Your task to perform on an android device: set the stopwatch Image 0: 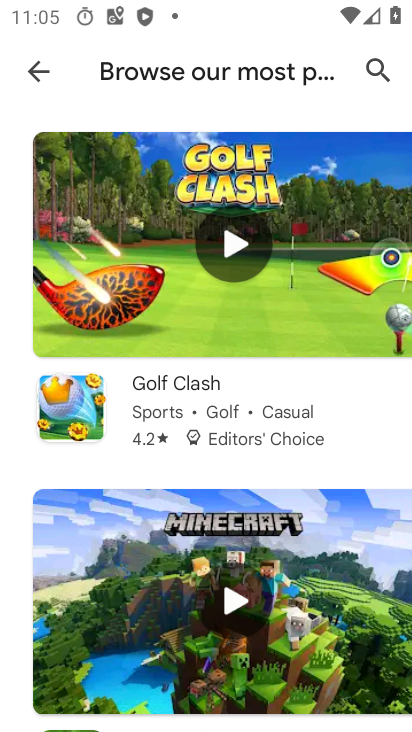
Step 0: press home button
Your task to perform on an android device: set the stopwatch Image 1: 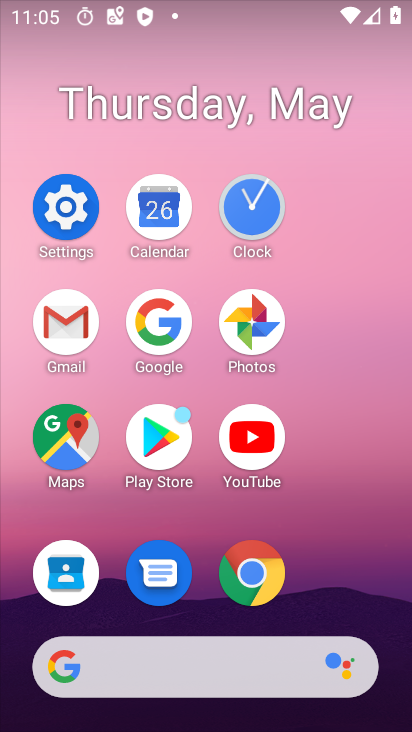
Step 1: click (243, 223)
Your task to perform on an android device: set the stopwatch Image 2: 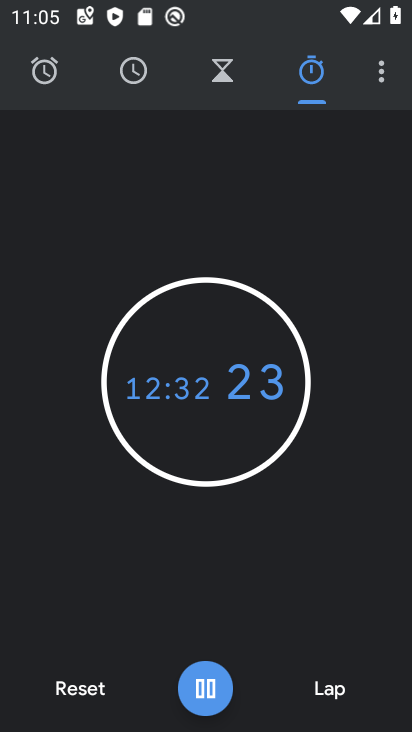
Step 2: click (75, 677)
Your task to perform on an android device: set the stopwatch Image 3: 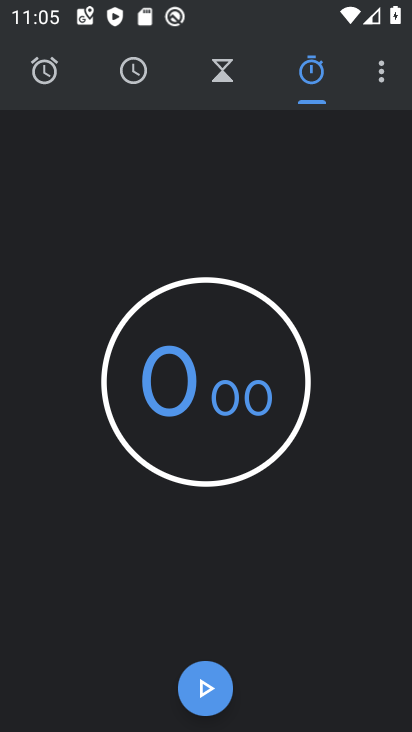
Step 3: click (205, 687)
Your task to perform on an android device: set the stopwatch Image 4: 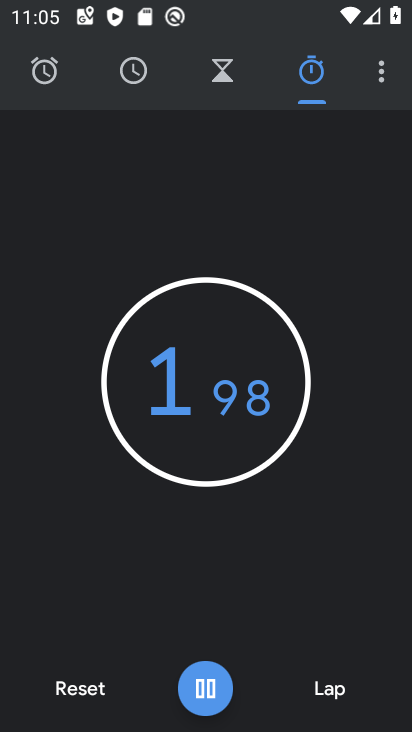
Step 4: task complete